Your task to perform on an android device: change keyboard looks Image 0: 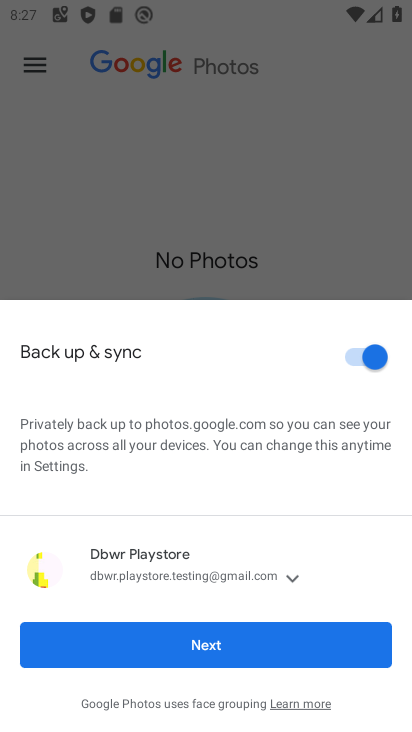
Step 0: press back button
Your task to perform on an android device: change keyboard looks Image 1: 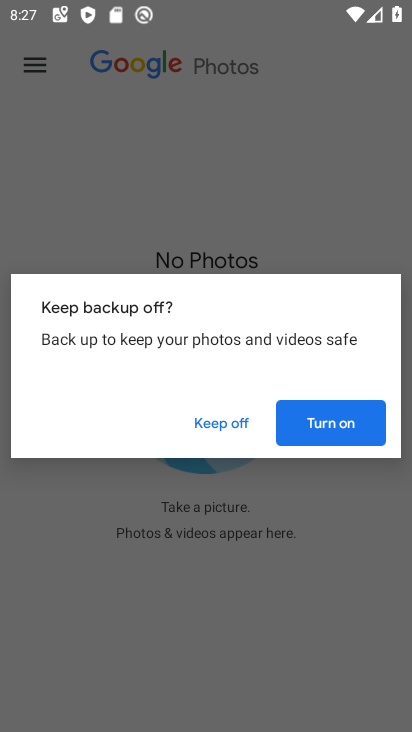
Step 1: press back button
Your task to perform on an android device: change keyboard looks Image 2: 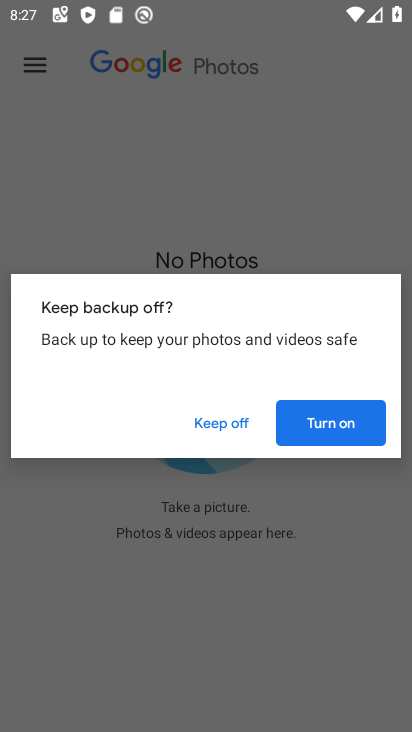
Step 2: press home button
Your task to perform on an android device: change keyboard looks Image 3: 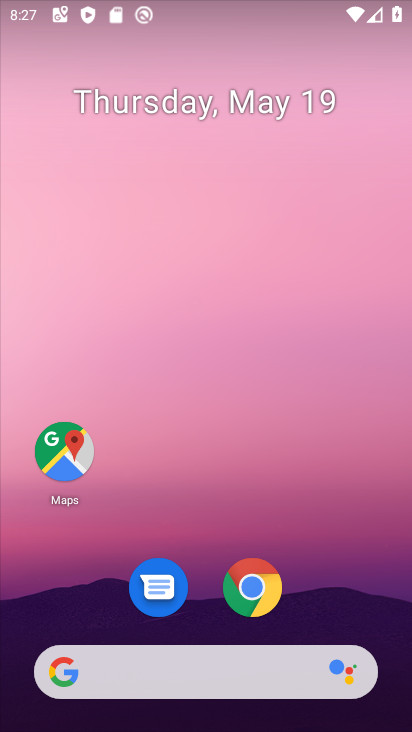
Step 3: drag from (342, 600) to (264, 62)
Your task to perform on an android device: change keyboard looks Image 4: 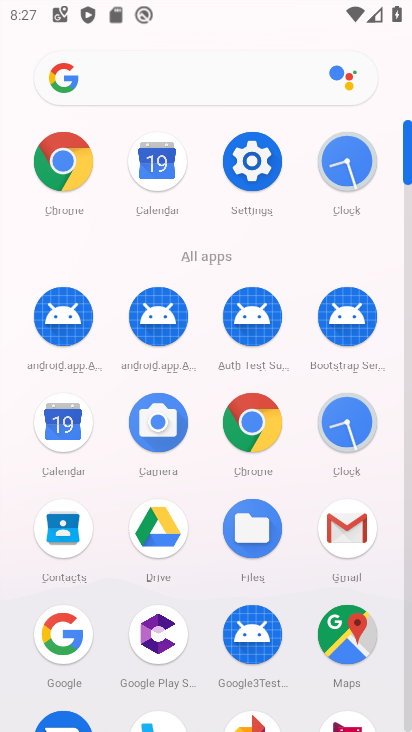
Step 4: click (248, 157)
Your task to perform on an android device: change keyboard looks Image 5: 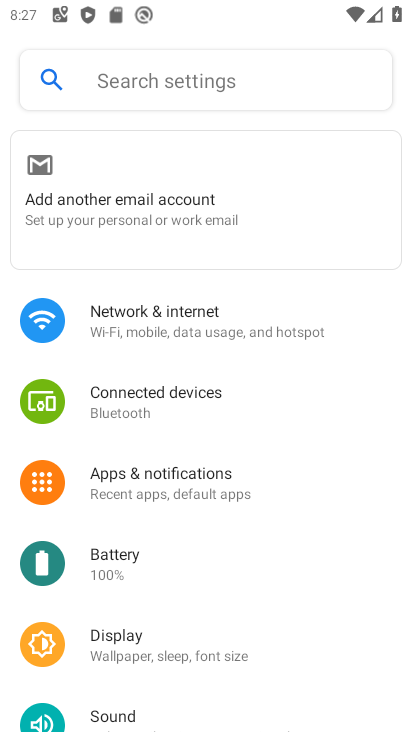
Step 5: drag from (251, 601) to (237, 126)
Your task to perform on an android device: change keyboard looks Image 6: 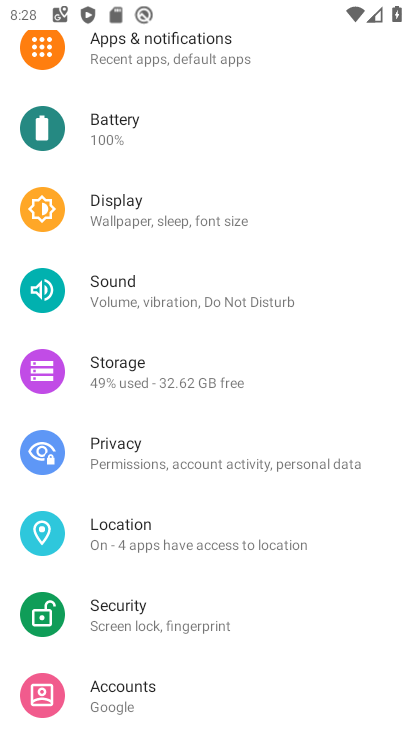
Step 6: drag from (326, 608) to (302, 73)
Your task to perform on an android device: change keyboard looks Image 7: 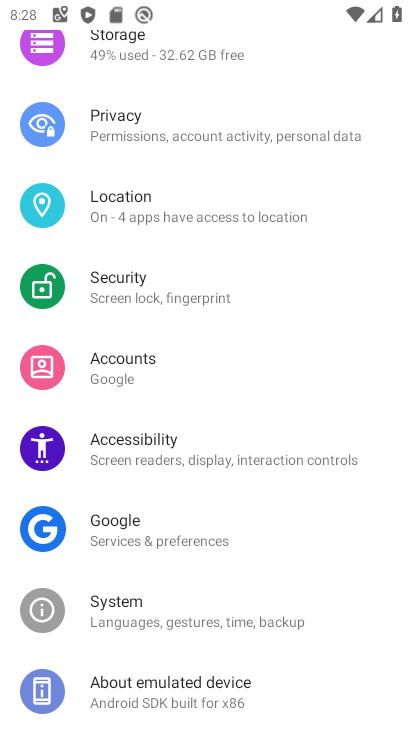
Step 7: click (197, 613)
Your task to perform on an android device: change keyboard looks Image 8: 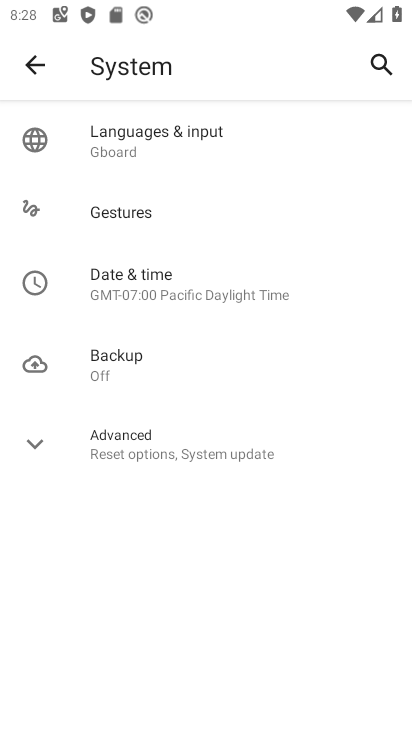
Step 8: click (161, 148)
Your task to perform on an android device: change keyboard looks Image 9: 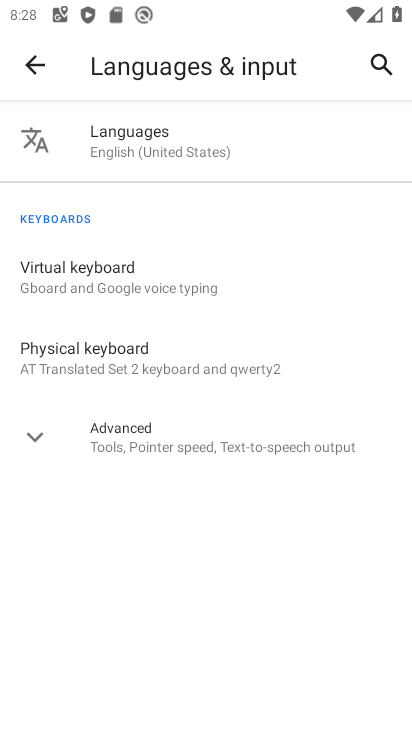
Step 9: click (138, 285)
Your task to perform on an android device: change keyboard looks Image 10: 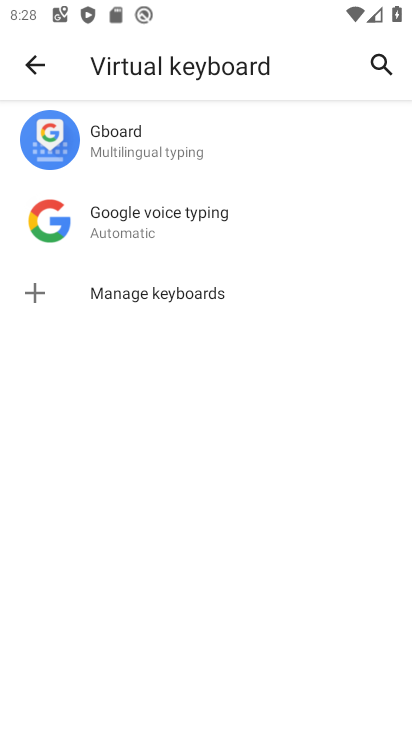
Step 10: click (142, 143)
Your task to perform on an android device: change keyboard looks Image 11: 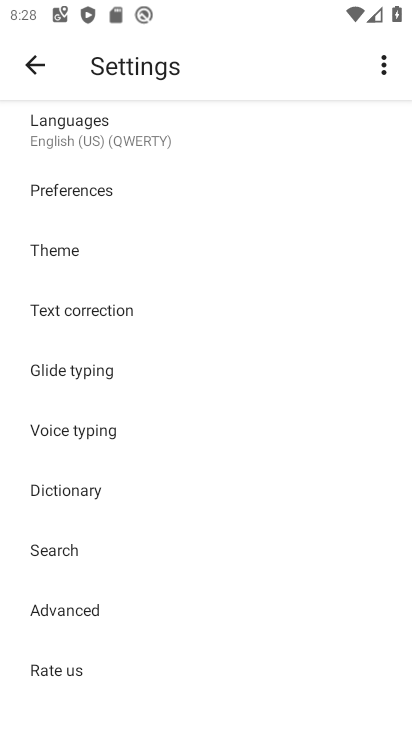
Step 11: click (104, 253)
Your task to perform on an android device: change keyboard looks Image 12: 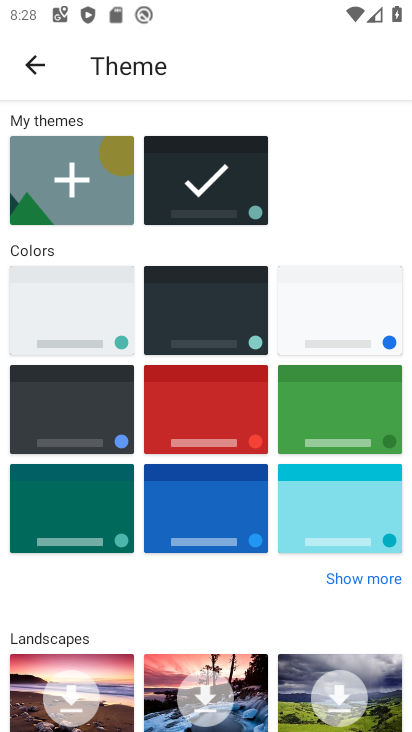
Step 12: click (204, 301)
Your task to perform on an android device: change keyboard looks Image 13: 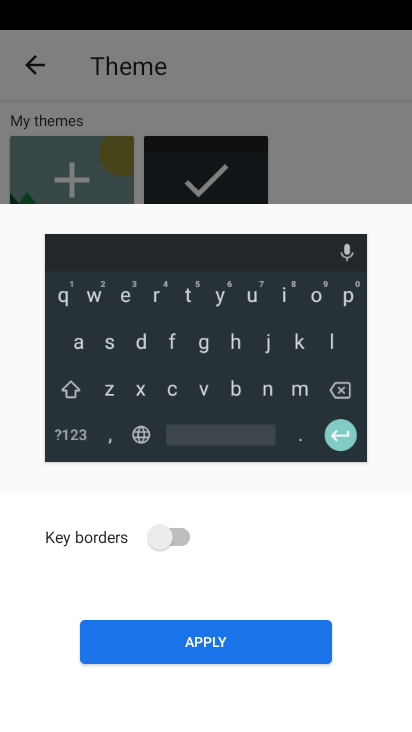
Step 13: click (242, 638)
Your task to perform on an android device: change keyboard looks Image 14: 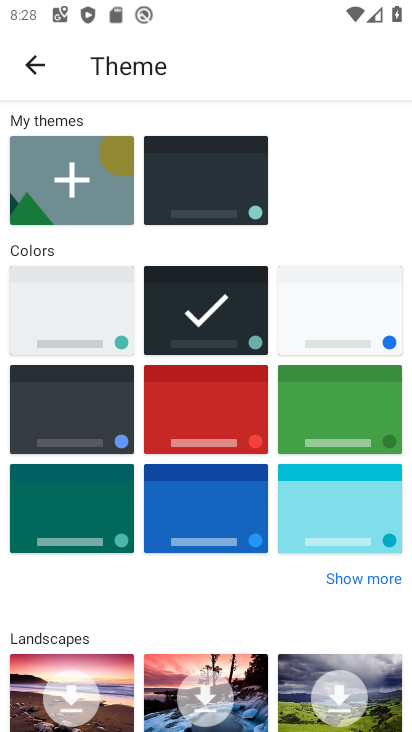
Step 14: task complete